Your task to perform on an android device: uninstall "TextNow: Call + Text Unlimited" Image 0: 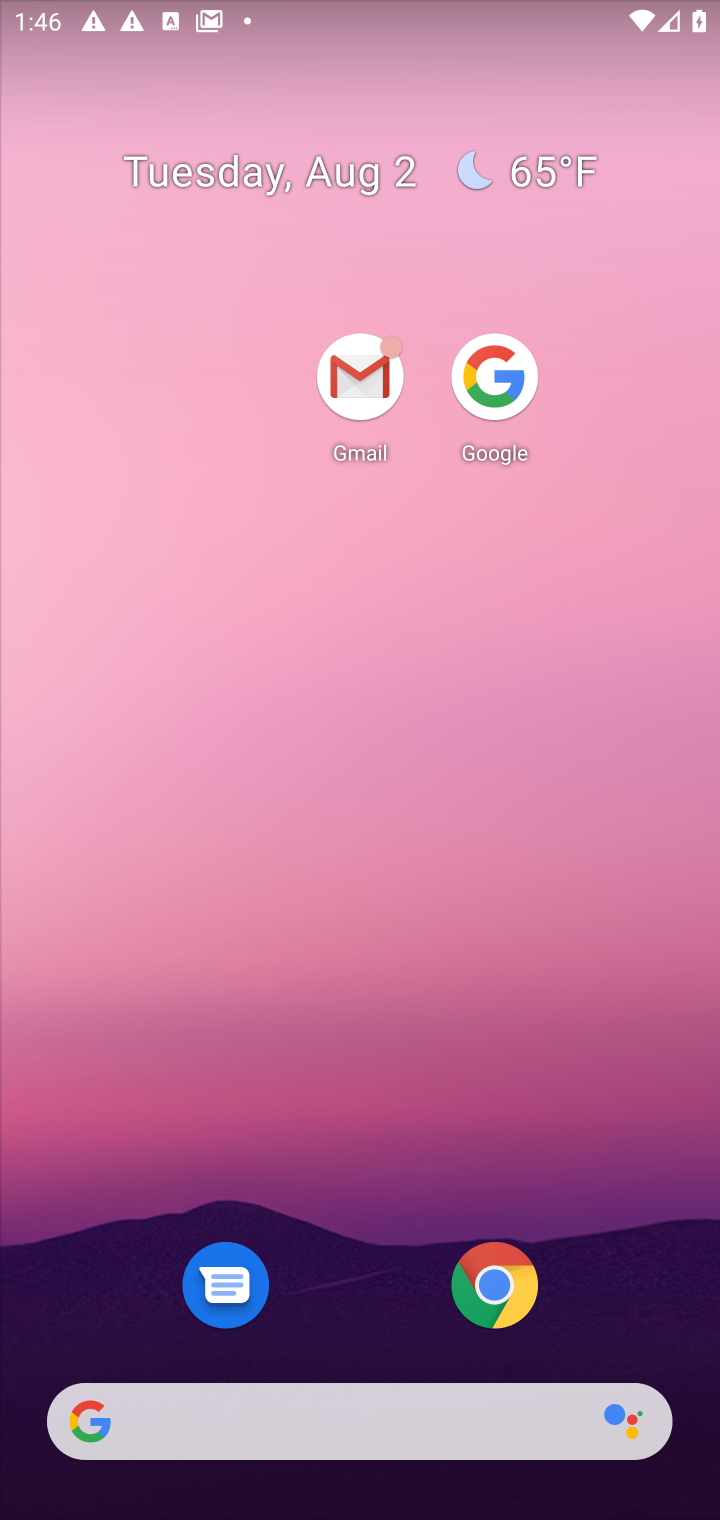
Step 0: drag from (367, 907) to (390, 61)
Your task to perform on an android device: uninstall "TextNow: Call + Text Unlimited" Image 1: 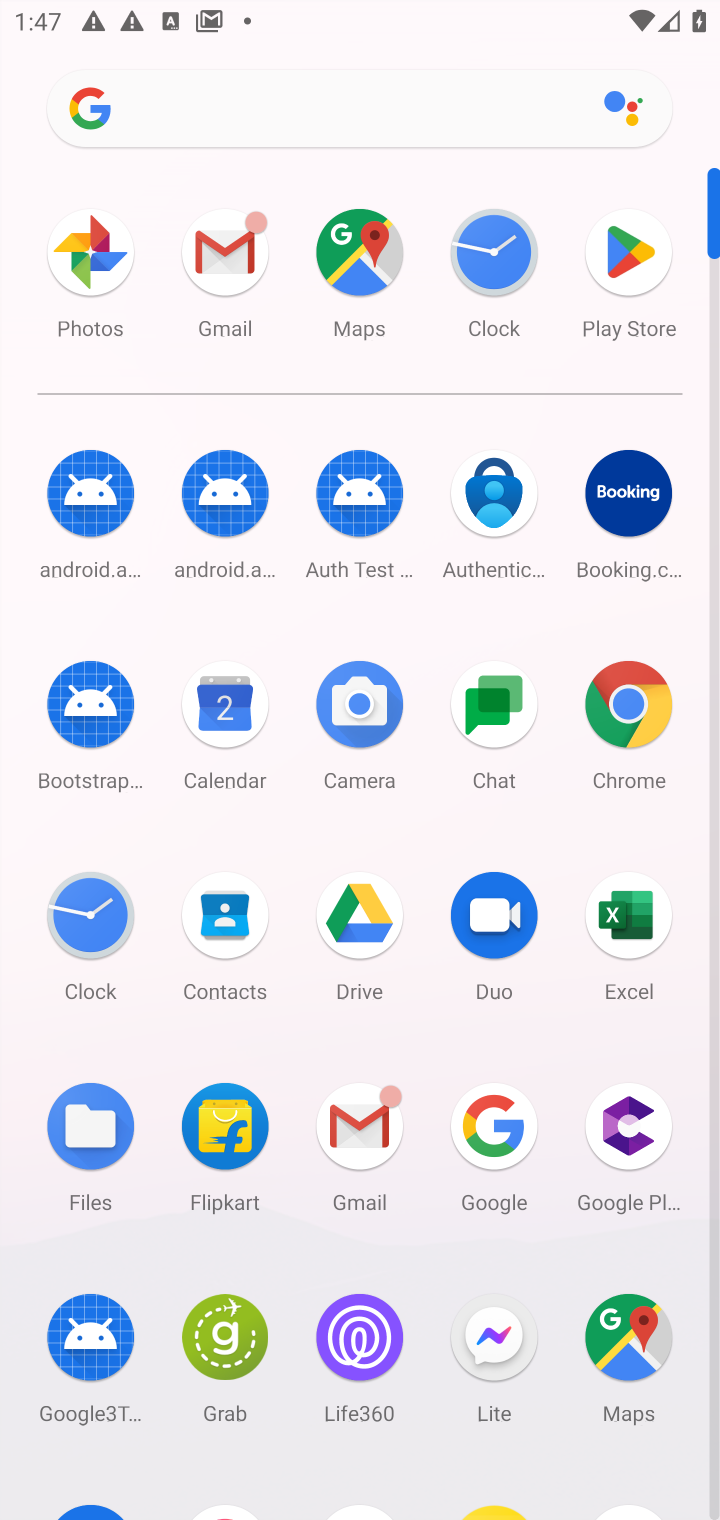
Step 1: drag from (435, 1189) to (470, 582)
Your task to perform on an android device: uninstall "TextNow: Call + Text Unlimited" Image 2: 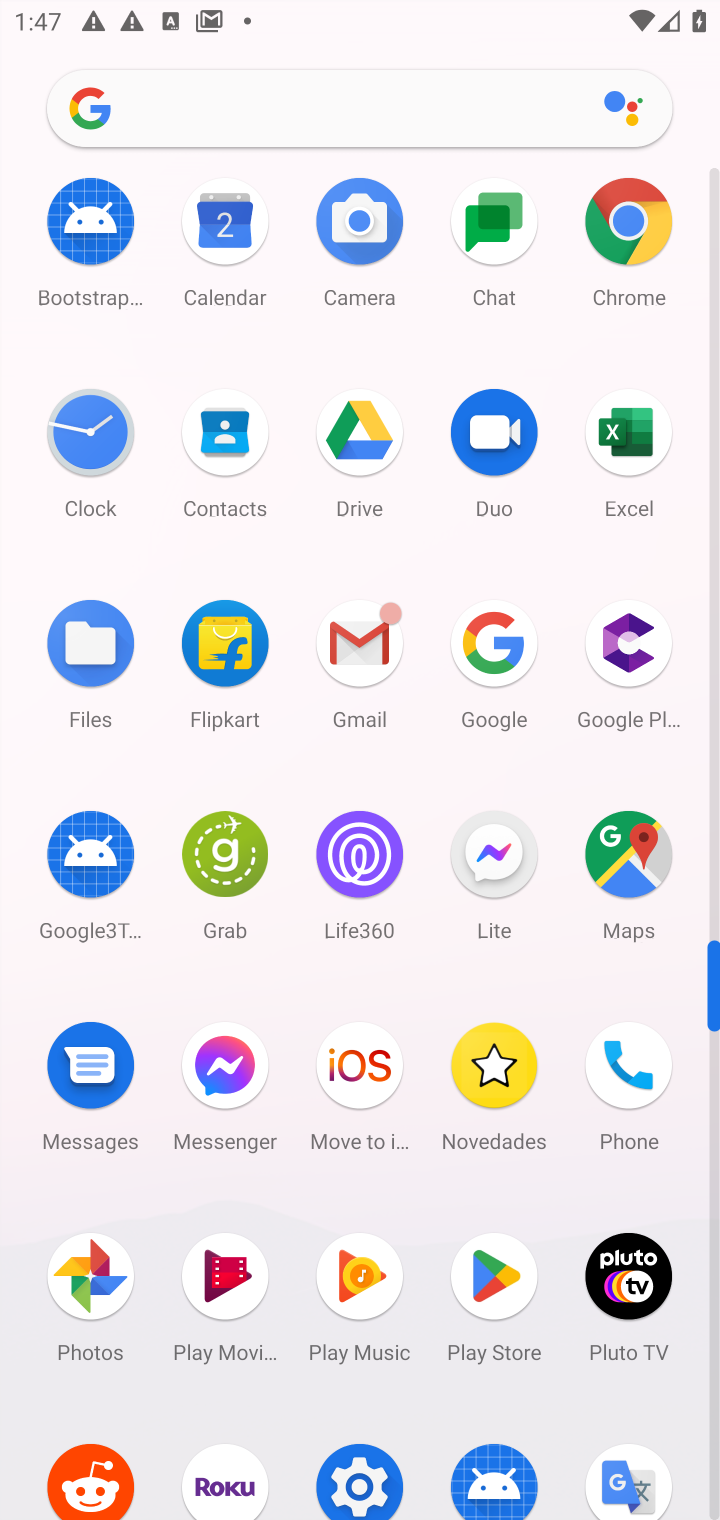
Step 2: click (497, 1286)
Your task to perform on an android device: uninstall "TextNow: Call + Text Unlimited" Image 3: 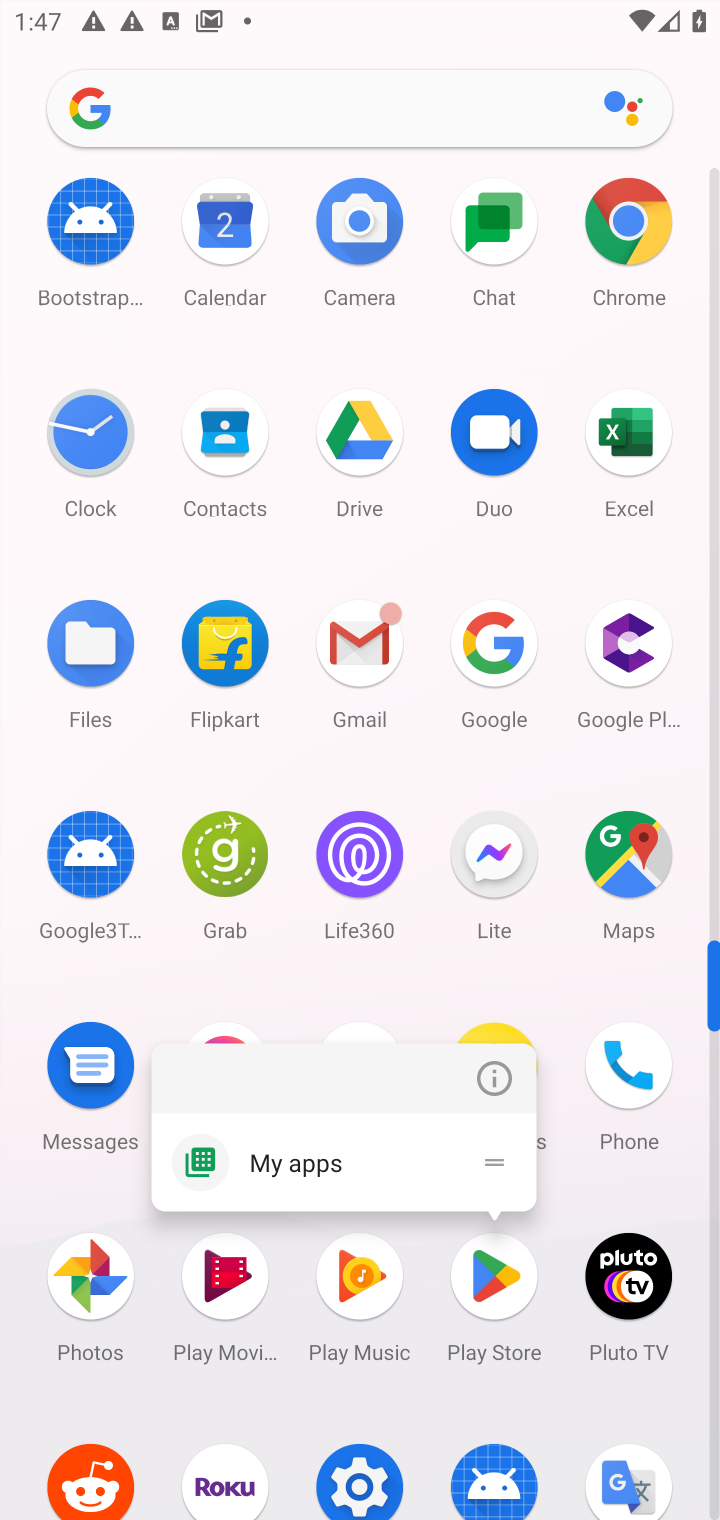
Step 3: click (497, 1278)
Your task to perform on an android device: uninstall "TextNow: Call + Text Unlimited" Image 4: 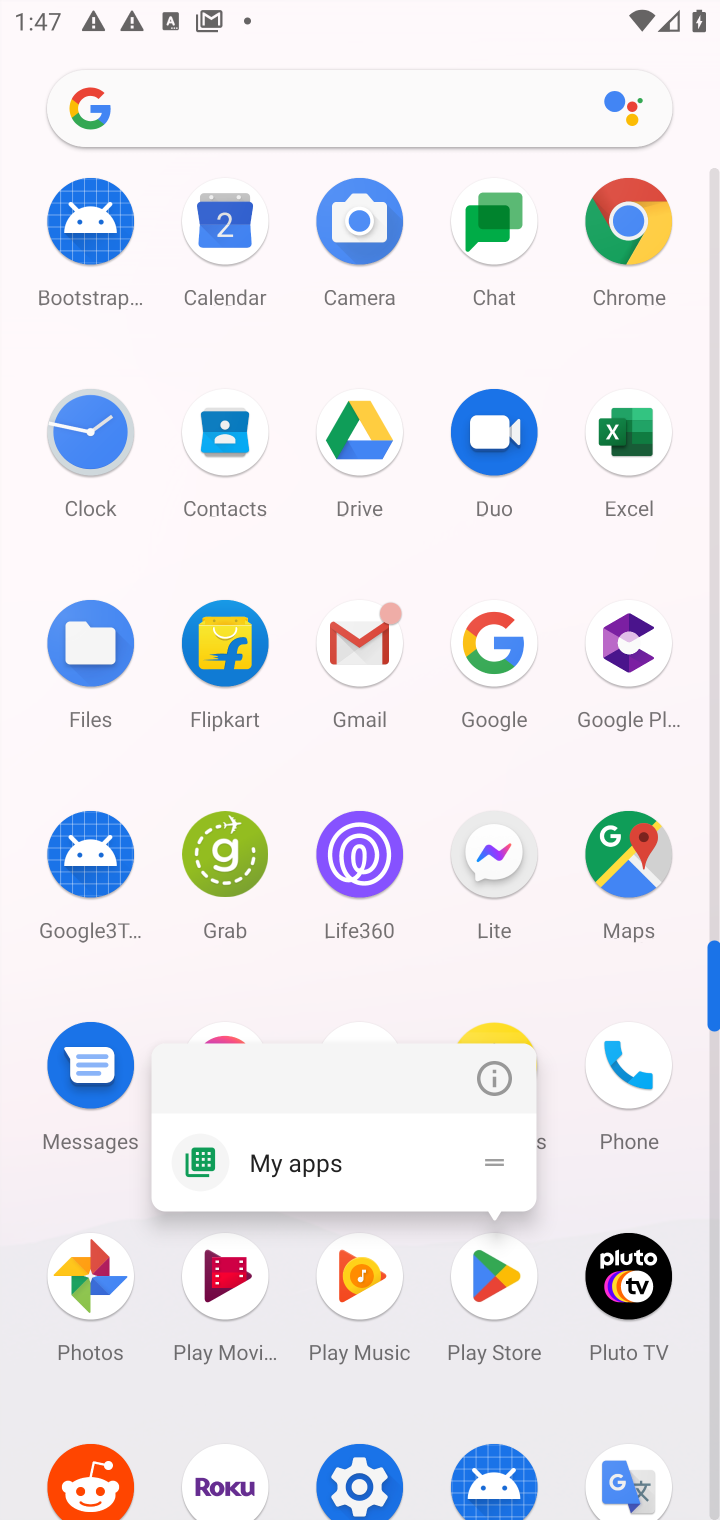
Step 4: click (497, 1274)
Your task to perform on an android device: uninstall "TextNow: Call + Text Unlimited" Image 5: 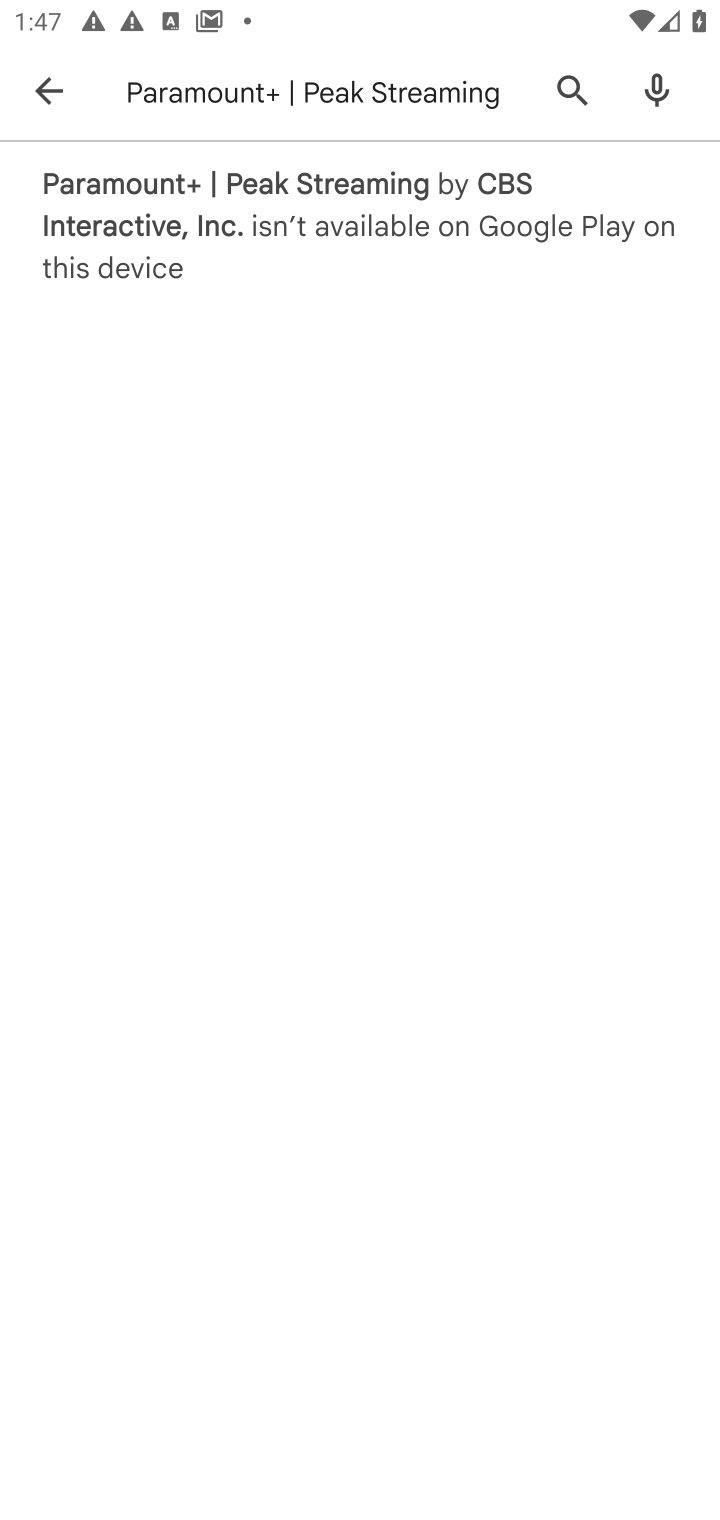
Step 5: click (330, 82)
Your task to perform on an android device: uninstall "TextNow: Call + Text Unlimited" Image 6: 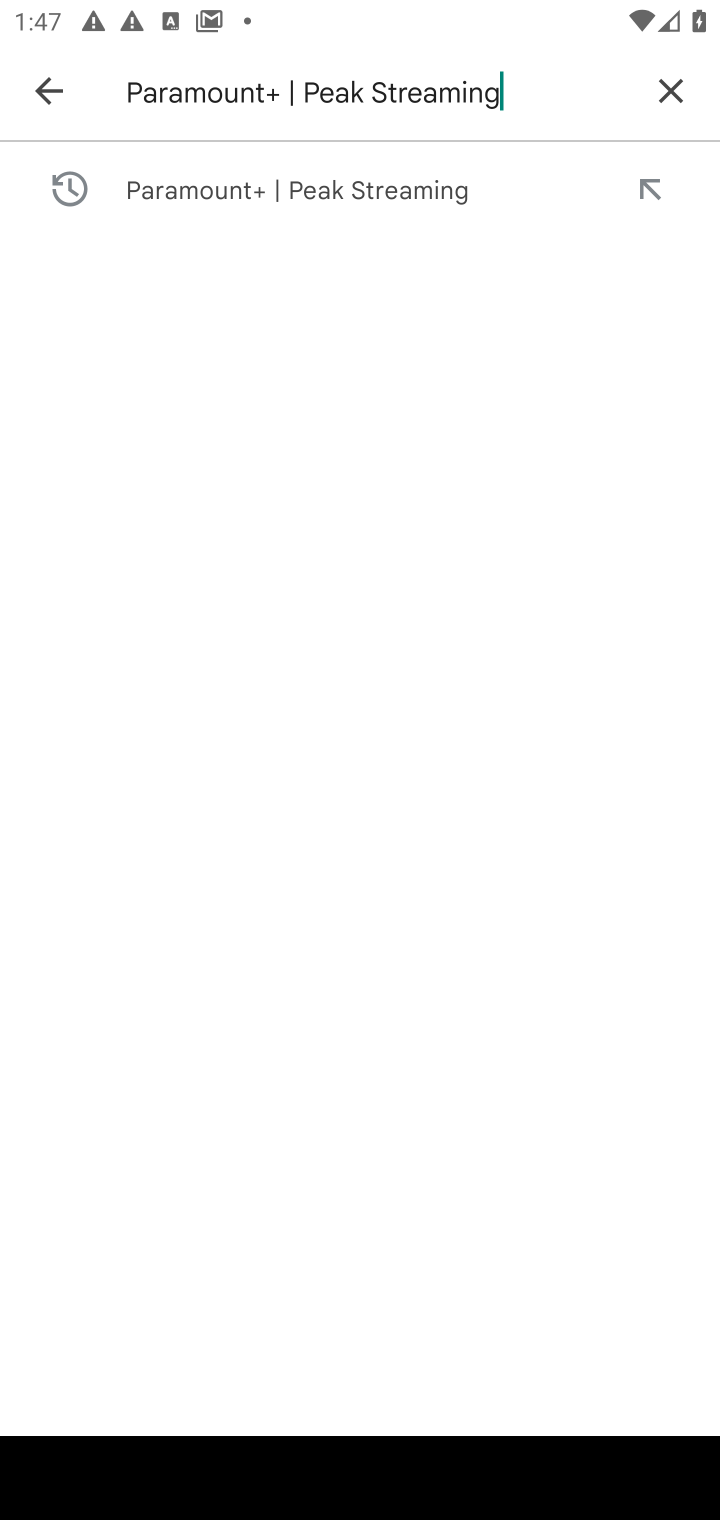
Step 6: click (662, 98)
Your task to perform on an android device: uninstall "TextNow: Call + Text Unlimited" Image 7: 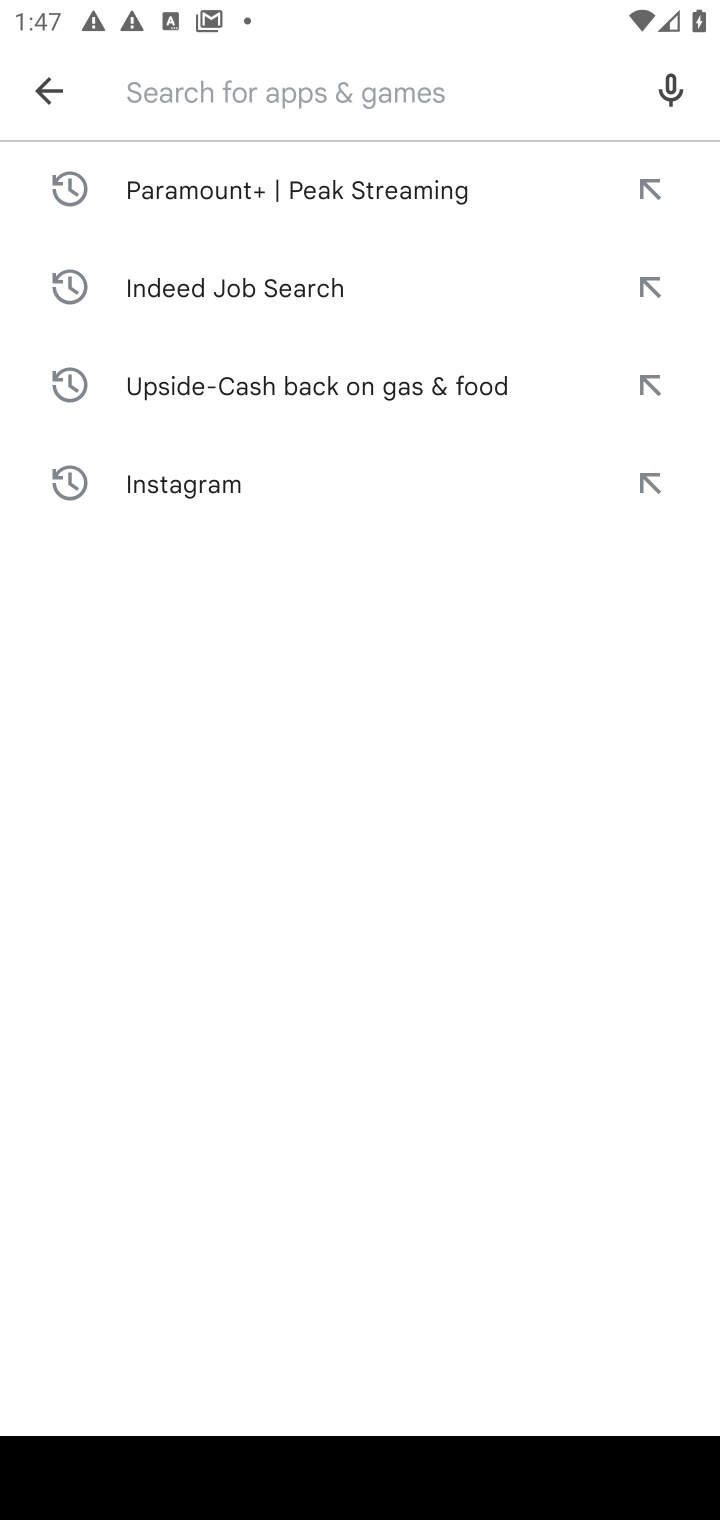
Step 7: type "TextNow: Call Text Unlimited"
Your task to perform on an android device: uninstall "TextNow: Call + Text Unlimited" Image 8: 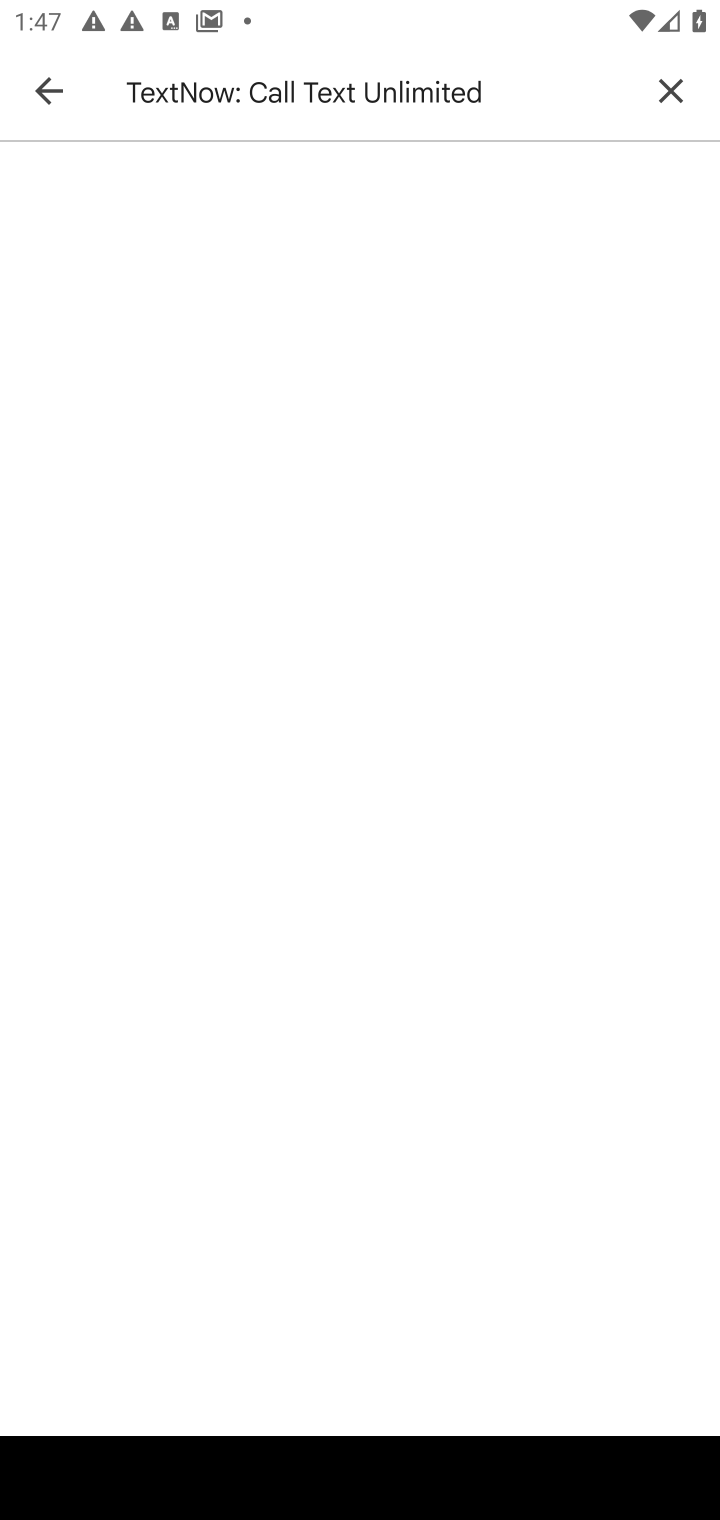
Step 8: press enter
Your task to perform on an android device: uninstall "TextNow: Call + Text Unlimited" Image 9: 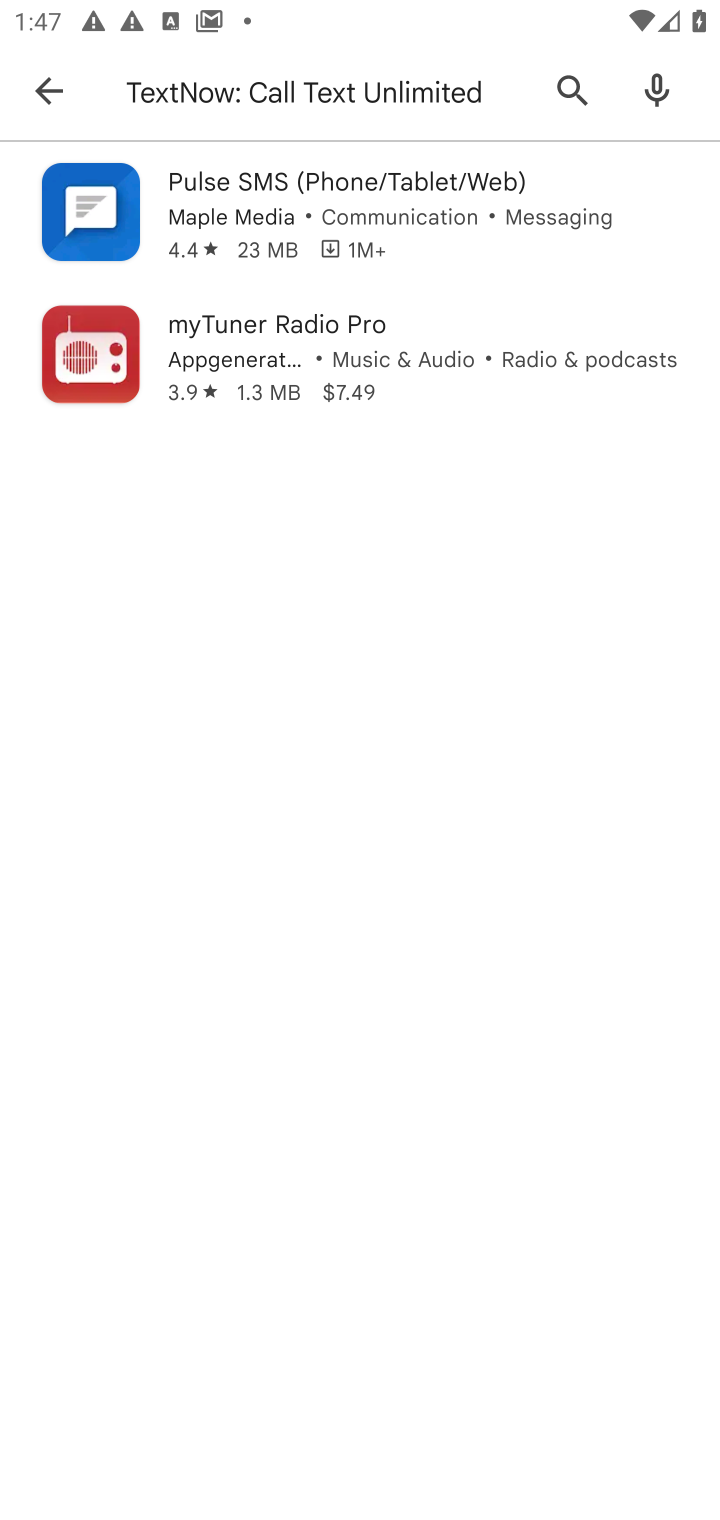
Step 9: task complete